Your task to perform on an android device: turn off location Image 0: 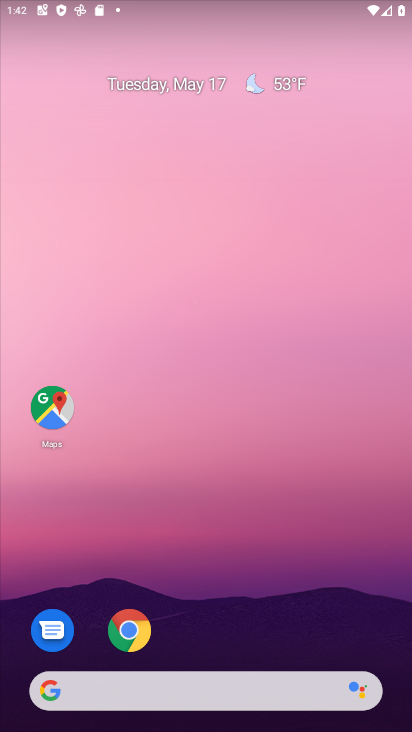
Step 0: drag from (221, 704) to (262, 233)
Your task to perform on an android device: turn off location Image 1: 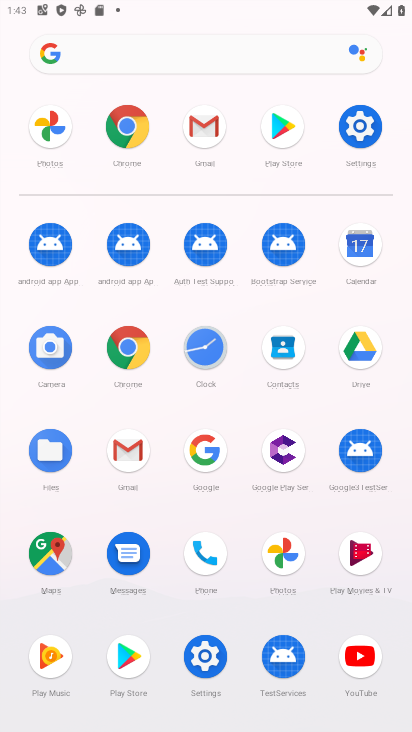
Step 1: click (368, 127)
Your task to perform on an android device: turn off location Image 2: 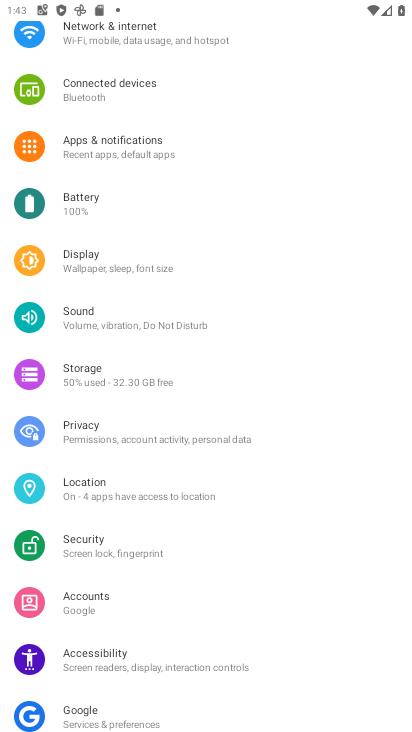
Step 2: click (149, 504)
Your task to perform on an android device: turn off location Image 3: 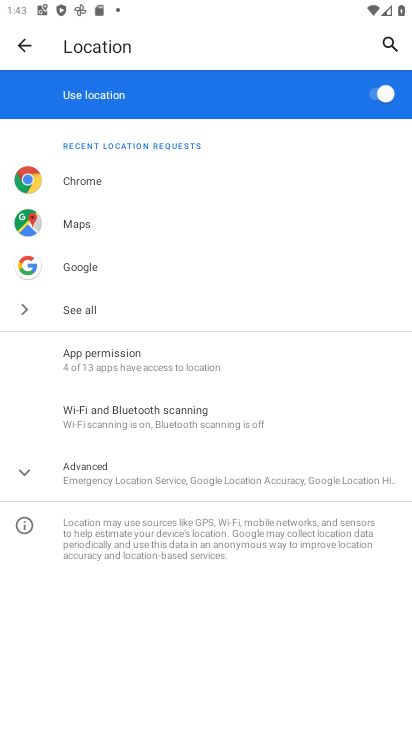
Step 3: click (376, 98)
Your task to perform on an android device: turn off location Image 4: 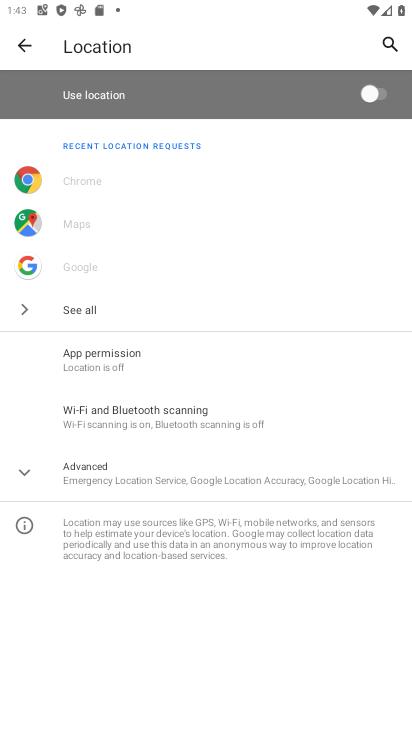
Step 4: task complete